Your task to perform on an android device: Go to ESPN.com Image 0: 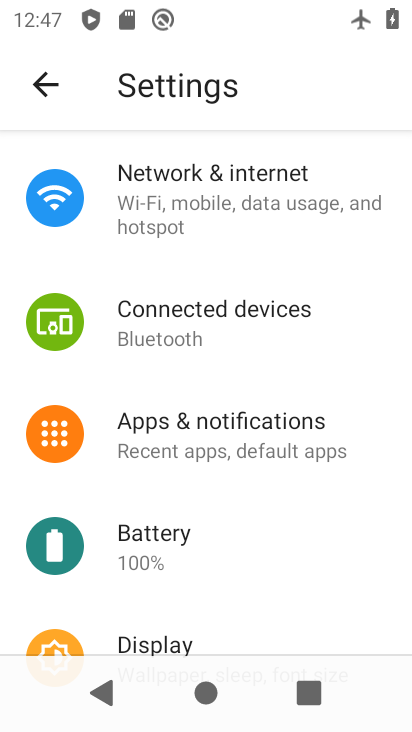
Step 0: press home button
Your task to perform on an android device: Go to ESPN.com Image 1: 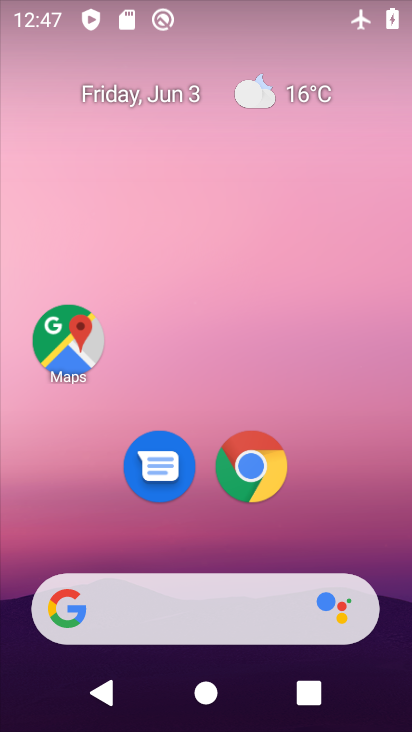
Step 1: drag from (239, 550) to (243, 213)
Your task to perform on an android device: Go to ESPN.com Image 2: 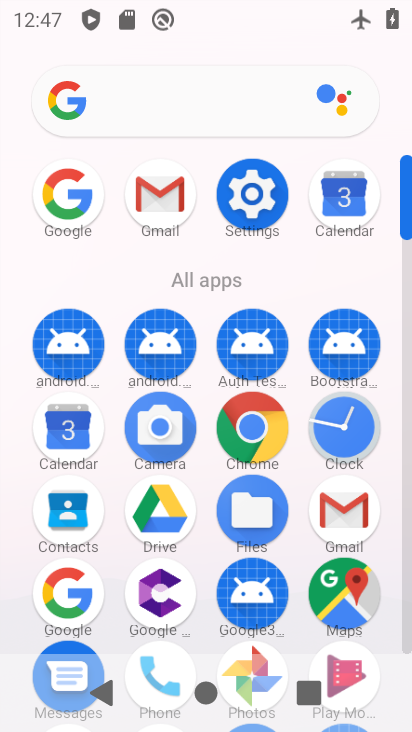
Step 2: click (254, 422)
Your task to perform on an android device: Go to ESPN.com Image 3: 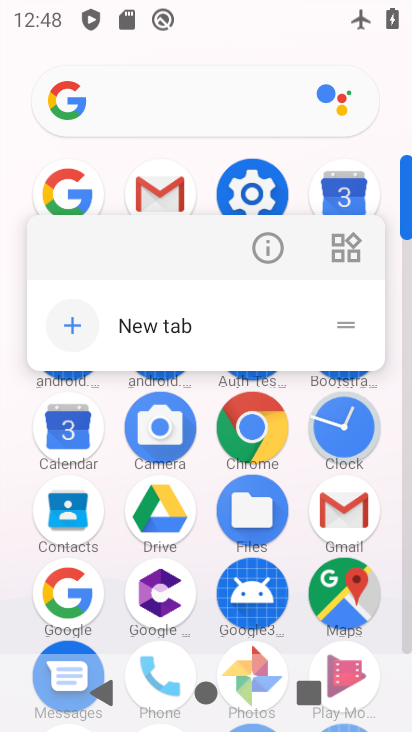
Step 3: click (254, 422)
Your task to perform on an android device: Go to ESPN.com Image 4: 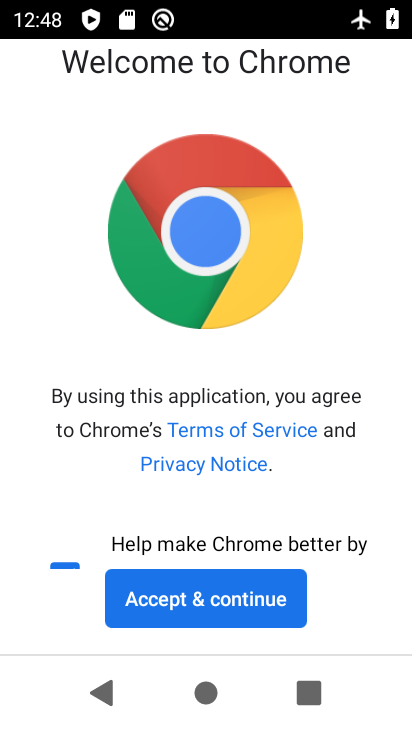
Step 4: click (234, 599)
Your task to perform on an android device: Go to ESPN.com Image 5: 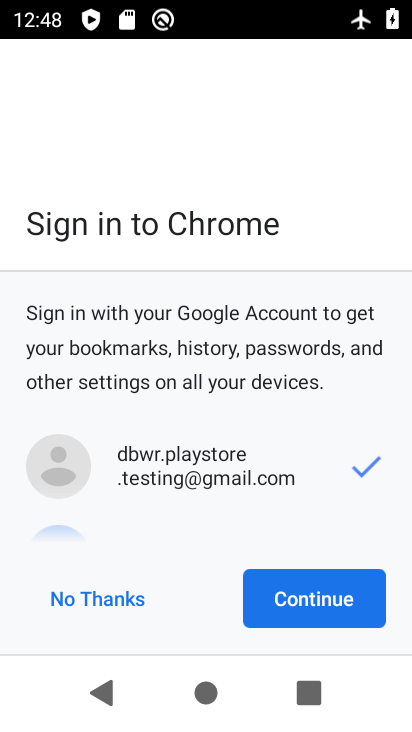
Step 5: click (235, 597)
Your task to perform on an android device: Go to ESPN.com Image 6: 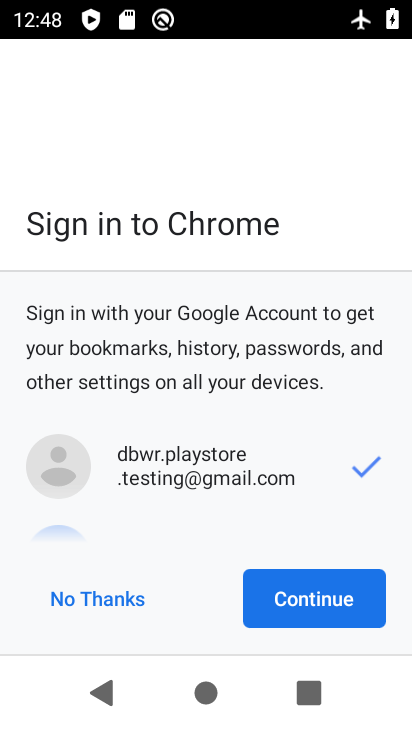
Step 6: click (263, 595)
Your task to perform on an android device: Go to ESPN.com Image 7: 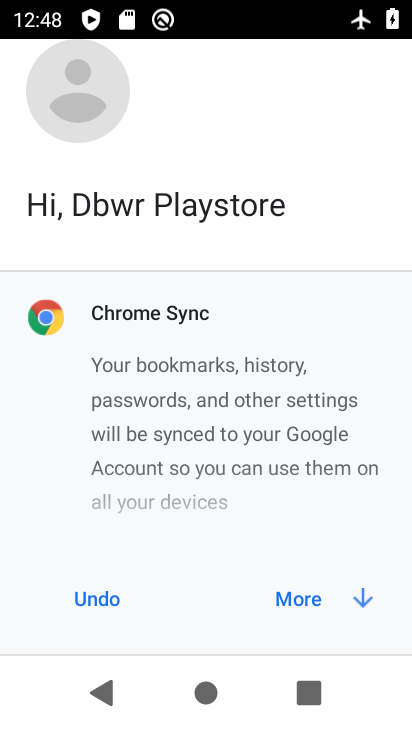
Step 7: click (263, 595)
Your task to perform on an android device: Go to ESPN.com Image 8: 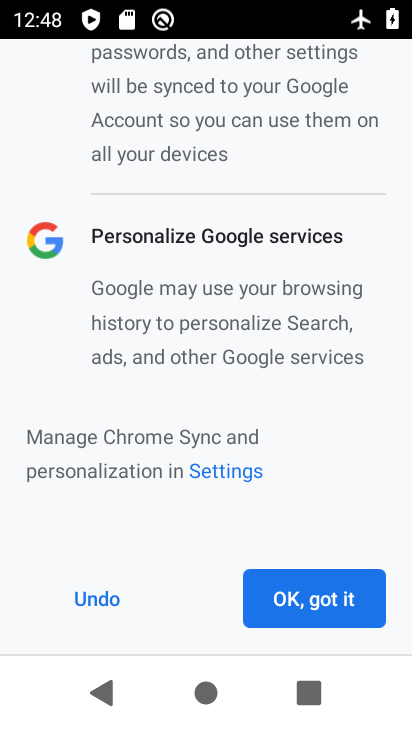
Step 8: click (273, 581)
Your task to perform on an android device: Go to ESPN.com Image 9: 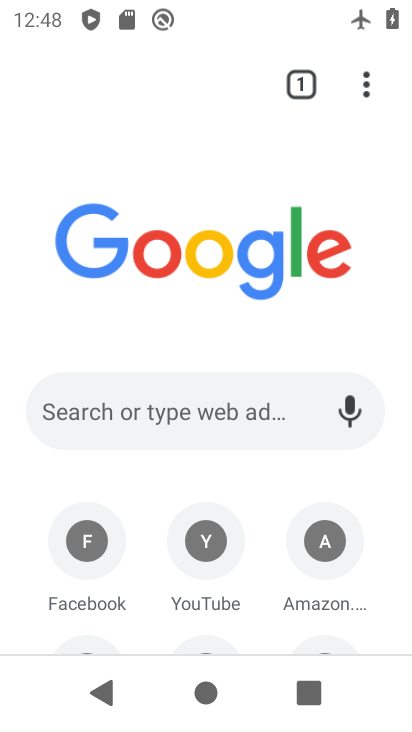
Step 9: drag from (250, 631) to (273, 231)
Your task to perform on an android device: Go to ESPN.com Image 10: 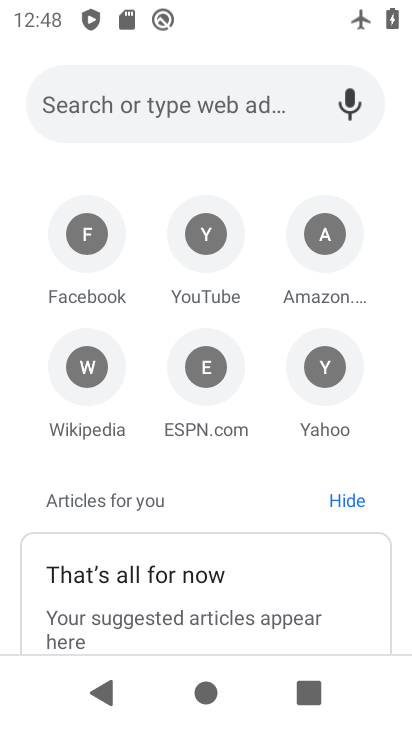
Step 10: click (204, 379)
Your task to perform on an android device: Go to ESPN.com Image 11: 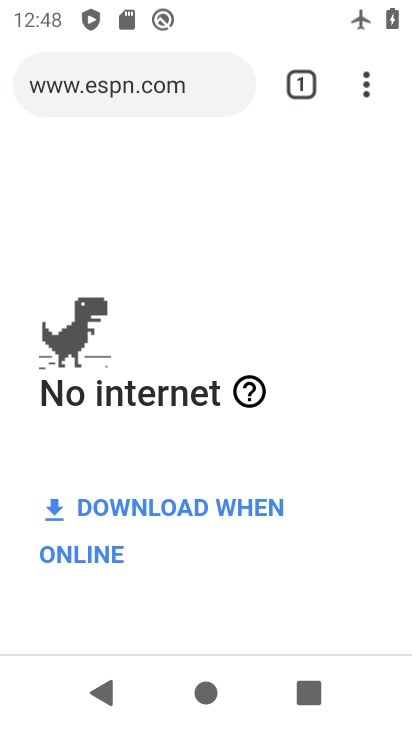
Step 11: task complete